Your task to perform on an android device: check the backup settings in the google photos Image 0: 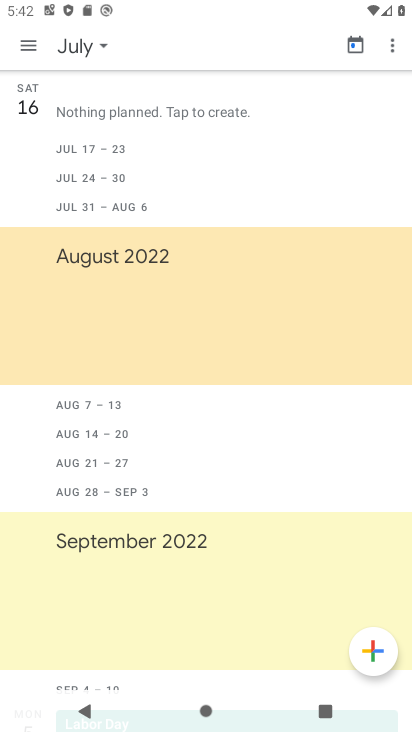
Step 0: press home button
Your task to perform on an android device: check the backup settings in the google photos Image 1: 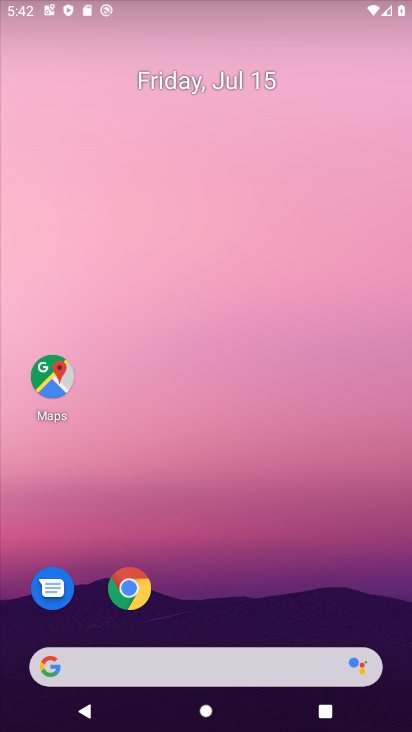
Step 1: drag from (289, 686) to (248, 9)
Your task to perform on an android device: check the backup settings in the google photos Image 2: 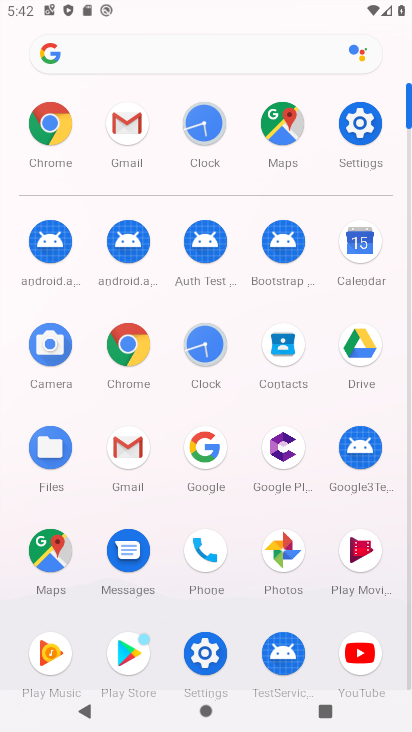
Step 2: click (284, 558)
Your task to perform on an android device: check the backup settings in the google photos Image 3: 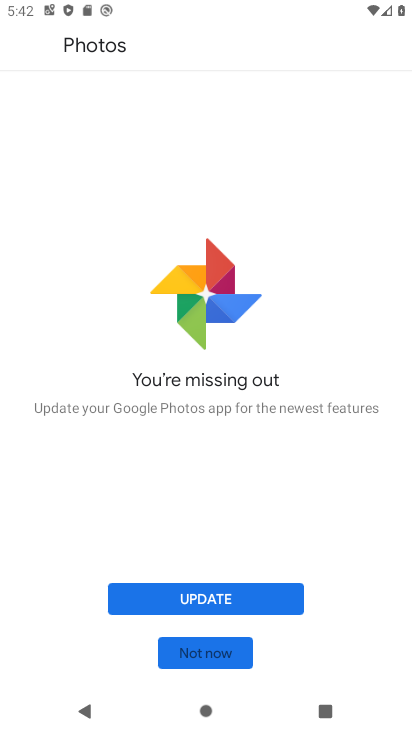
Step 3: click (249, 603)
Your task to perform on an android device: check the backup settings in the google photos Image 4: 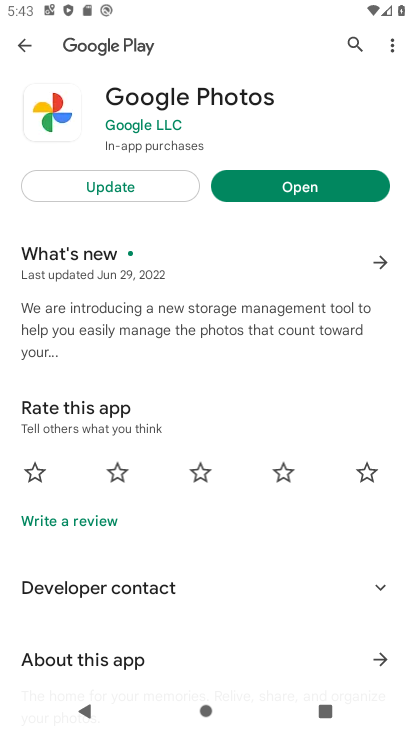
Step 4: click (124, 176)
Your task to perform on an android device: check the backup settings in the google photos Image 5: 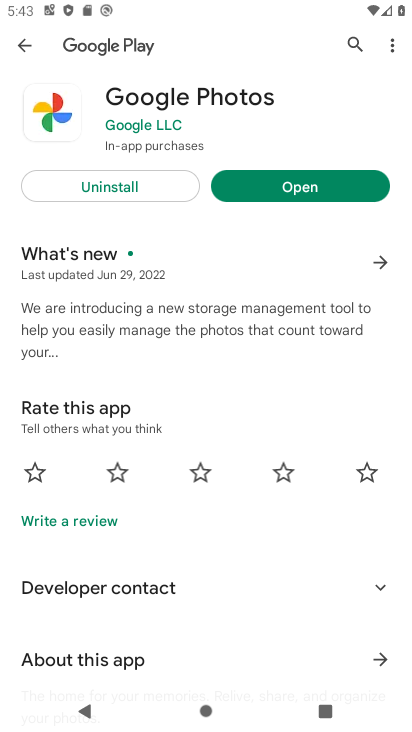
Step 5: click (327, 186)
Your task to perform on an android device: check the backup settings in the google photos Image 6: 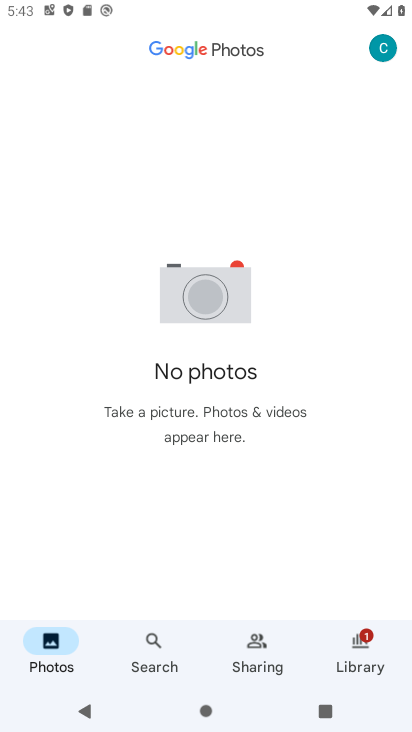
Step 6: click (390, 50)
Your task to perform on an android device: check the backup settings in the google photos Image 7: 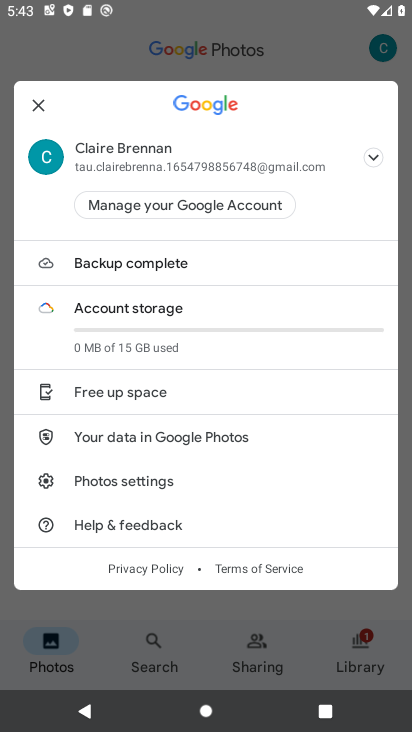
Step 7: click (139, 477)
Your task to perform on an android device: check the backup settings in the google photos Image 8: 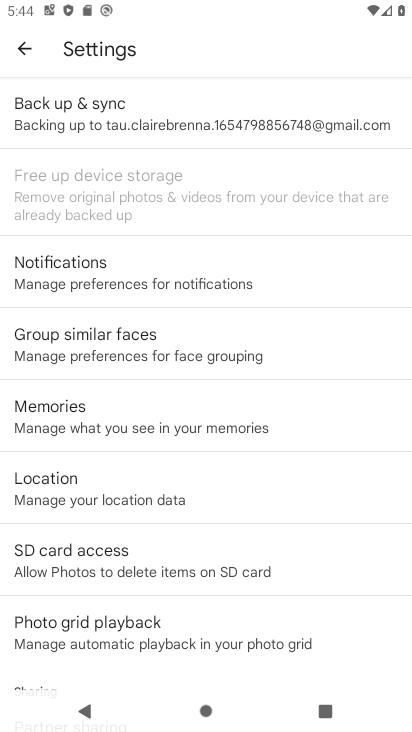
Step 8: click (167, 135)
Your task to perform on an android device: check the backup settings in the google photos Image 9: 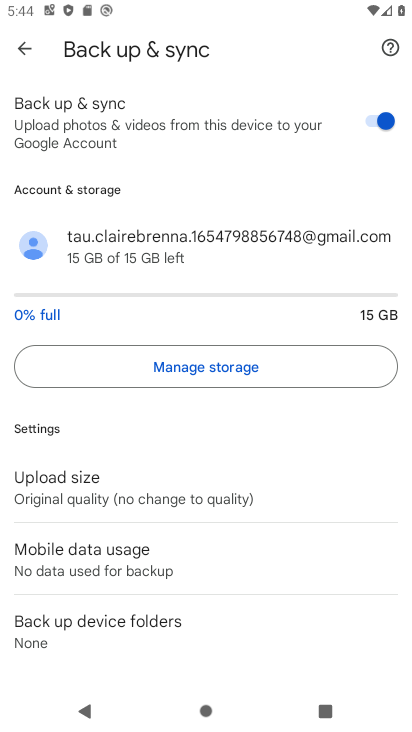
Step 9: task complete